Your task to perform on an android device: empty trash in the gmail app Image 0: 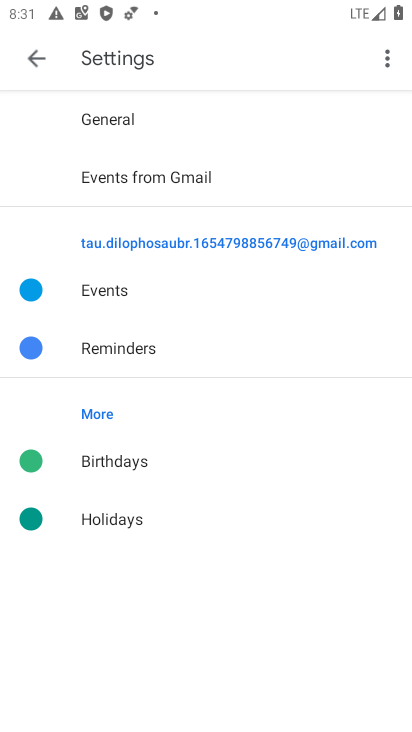
Step 0: press home button
Your task to perform on an android device: empty trash in the gmail app Image 1: 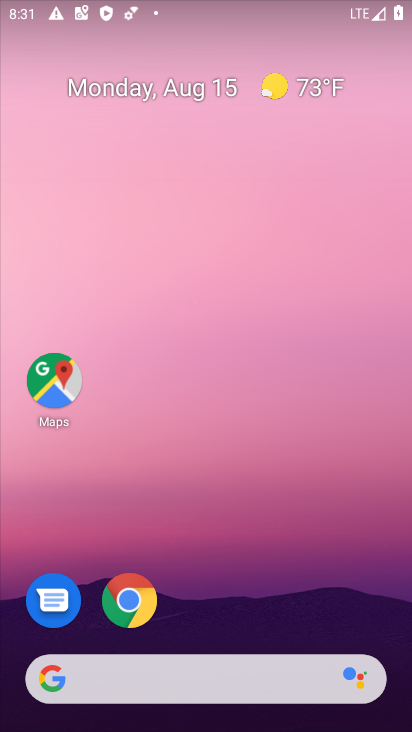
Step 1: drag from (227, 617) to (295, 62)
Your task to perform on an android device: empty trash in the gmail app Image 2: 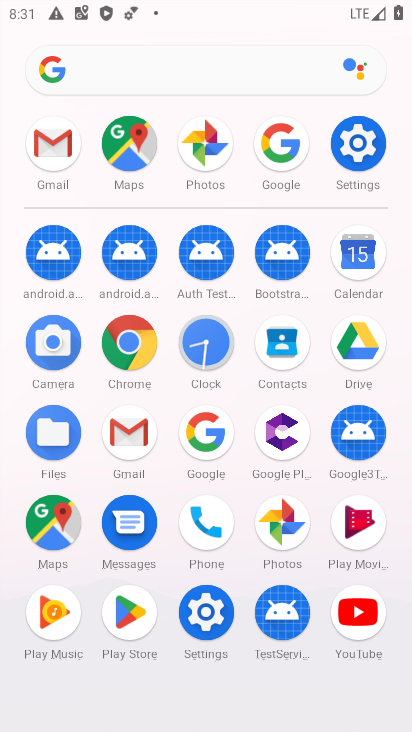
Step 2: click (125, 433)
Your task to perform on an android device: empty trash in the gmail app Image 3: 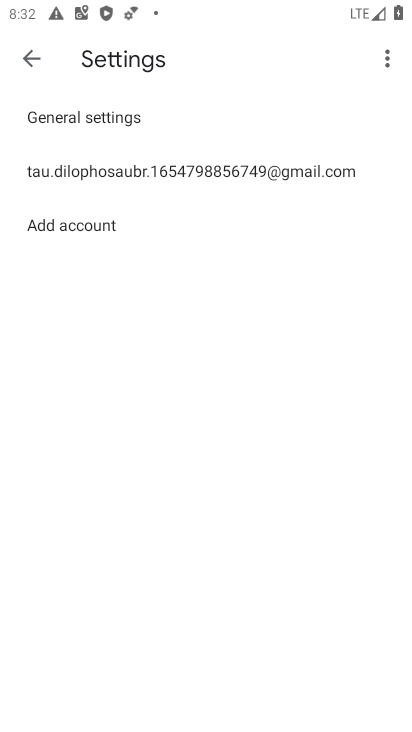
Step 3: click (25, 53)
Your task to perform on an android device: empty trash in the gmail app Image 4: 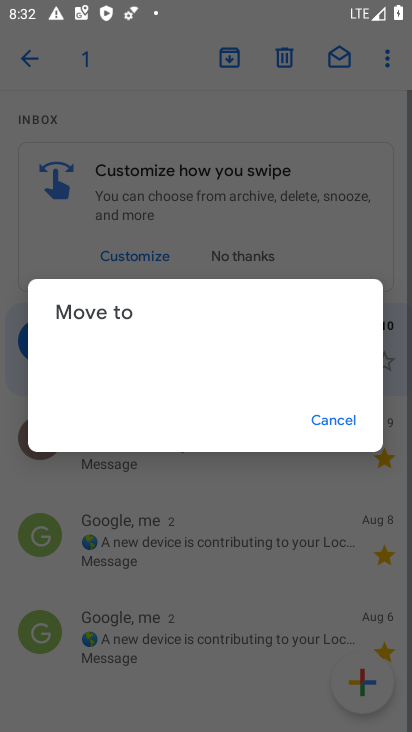
Step 4: click (328, 418)
Your task to perform on an android device: empty trash in the gmail app Image 5: 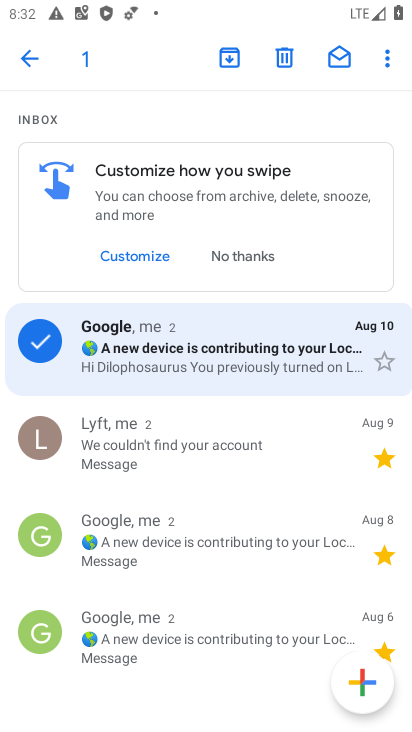
Step 5: click (29, 54)
Your task to perform on an android device: empty trash in the gmail app Image 6: 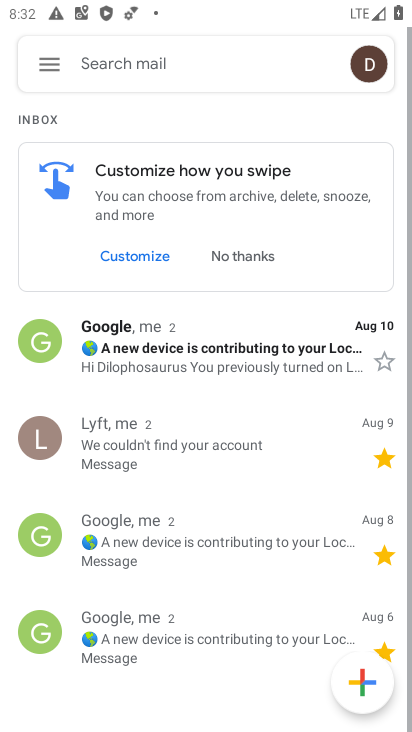
Step 6: click (48, 60)
Your task to perform on an android device: empty trash in the gmail app Image 7: 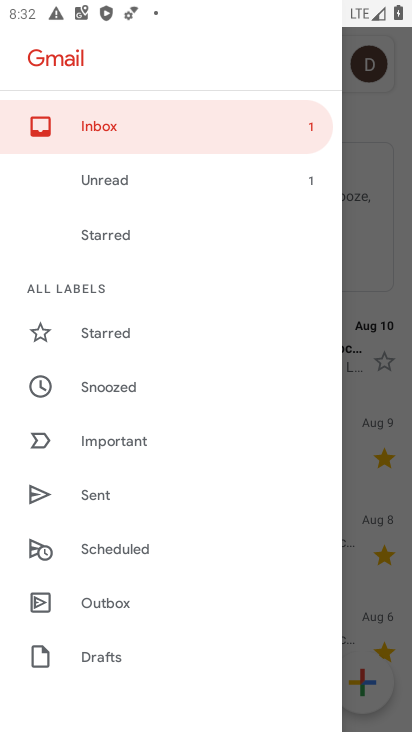
Step 7: drag from (115, 623) to (104, 326)
Your task to perform on an android device: empty trash in the gmail app Image 8: 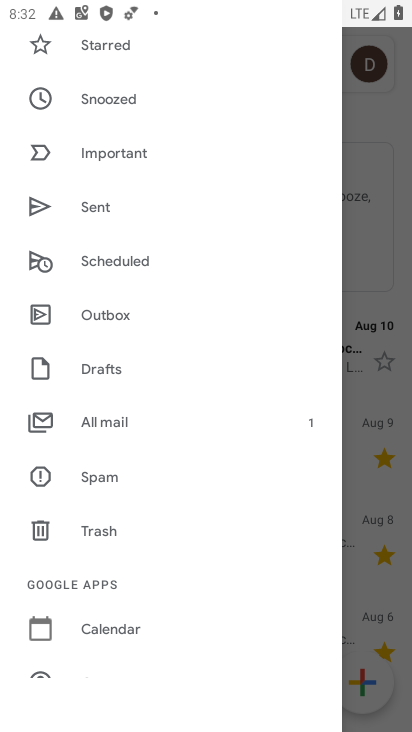
Step 8: click (93, 524)
Your task to perform on an android device: empty trash in the gmail app Image 9: 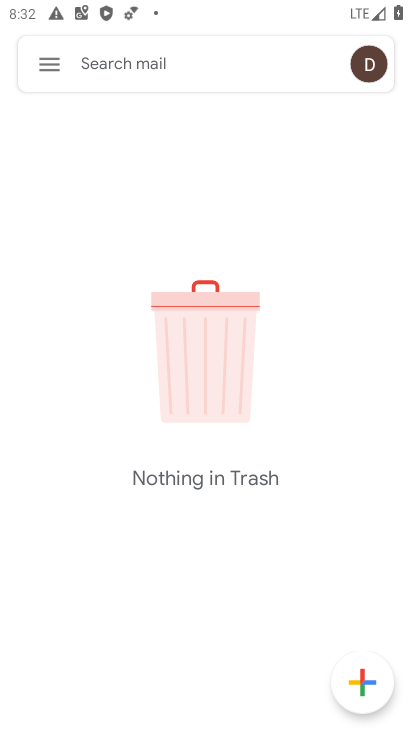
Step 9: task complete